Your task to perform on an android device: Go to Wikipedia Image 0: 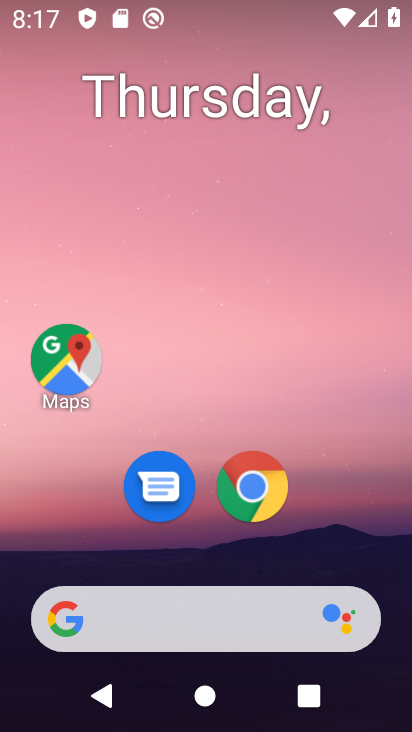
Step 0: click (260, 486)
Your task to perform on an android device: Go to Wikipedia Image 1: 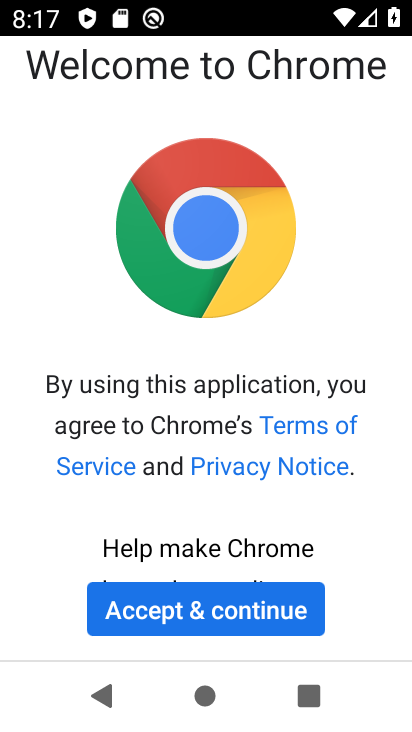
Step 1: click (217, 607)
Your task to perform on an android device: Go to Wikipedia Image 2: 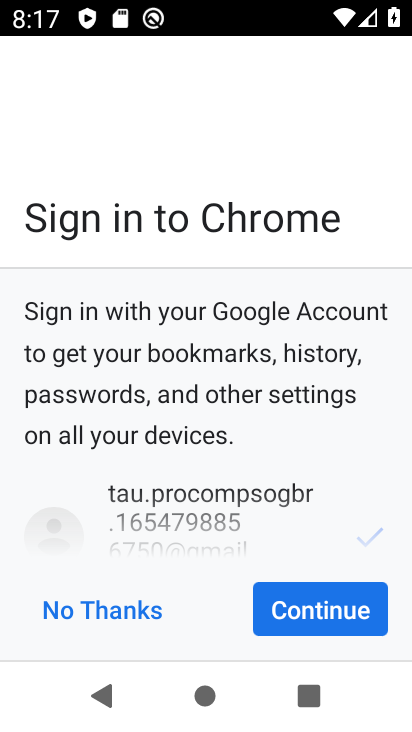
Step 2: click (325, 608)
Your task to perform on an android device: Go to Wikipedia Image 3: 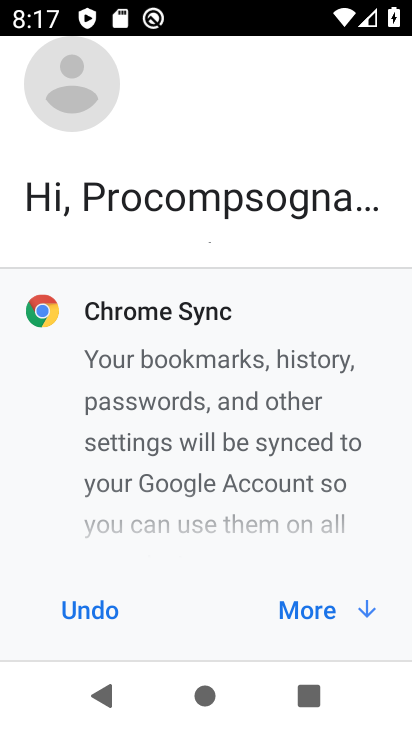
Step 3: click (342, 612)
Your task to perform on an android device: Go to Wikipedia Image 4: 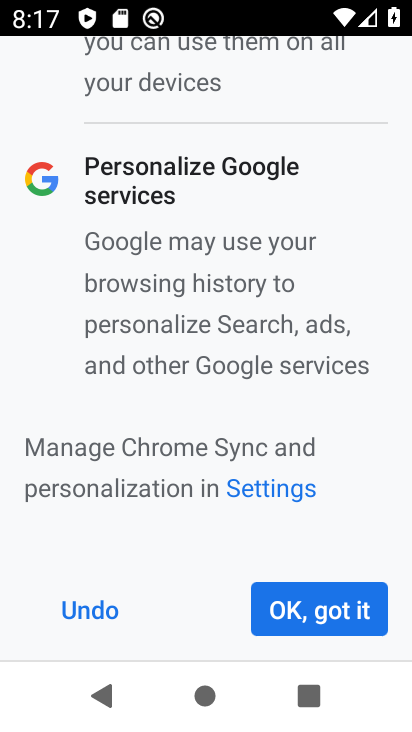
Step 4: click (308, 614)
Your task to perform on an android device: Go to Wikipedia Image 5: 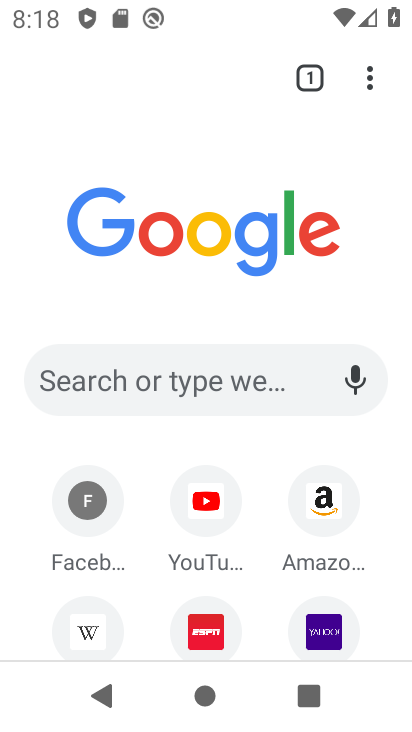
Step 5: click (84, 632)
Your task to perform on an android device: Go to Wikipedia Image 6: 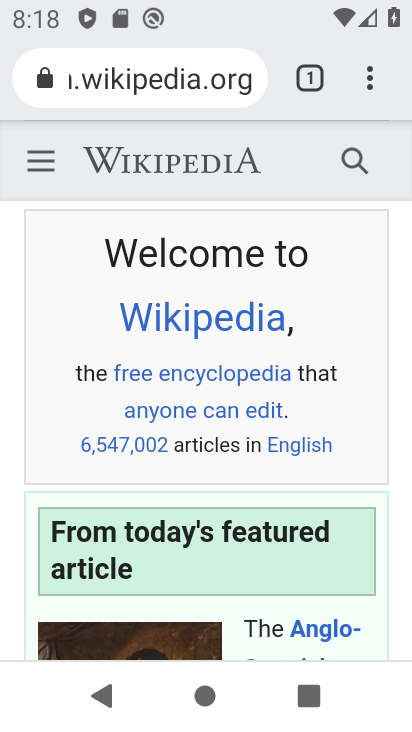
Step 6: task complete